Your task to perform on an android device: Open the web browser Image 0: 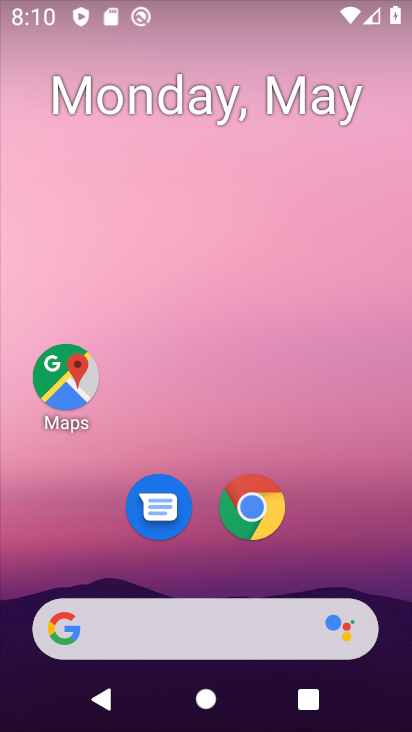
Step 0: click (252, 517)
Your task to perform on an android device: Open the web browser Image 1: 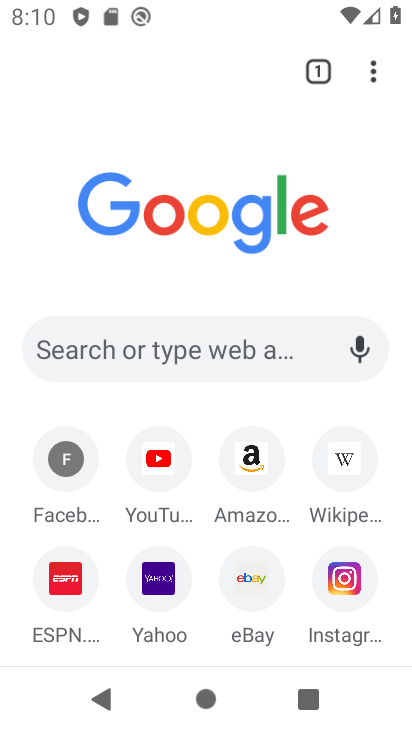
Step 1: task complete